Your task to perform on an android device: Check the news Image 0: 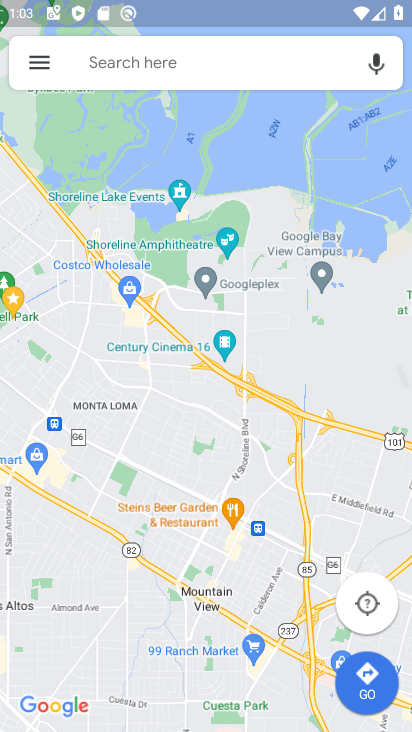
Step 0: press home button
Your task to perform on an android device: Check the news Image 1: 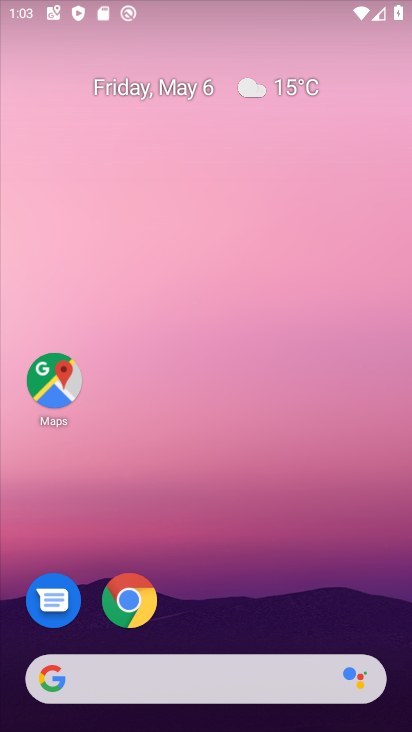
Step 1: drag from (347, 432) to (283, 93)
Your task to perform on an android device: Check the news Image 2: 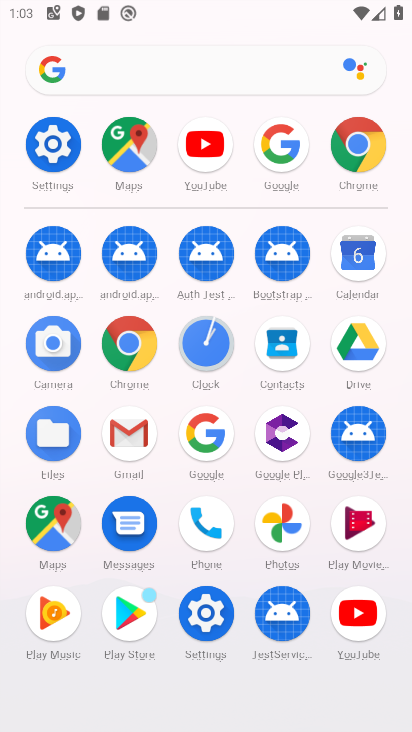
Step 2: click (361, 166)
Your task to perform on an android device: Check the news Image 3: 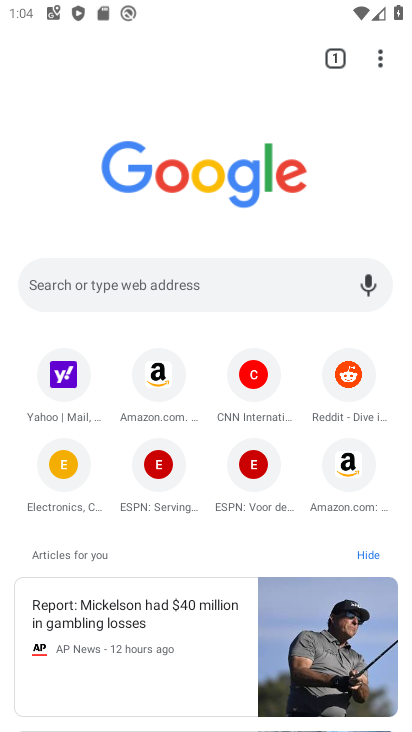
Step 3: click (76, 615)
Your task to perform on an android device: Check the news Image 4: 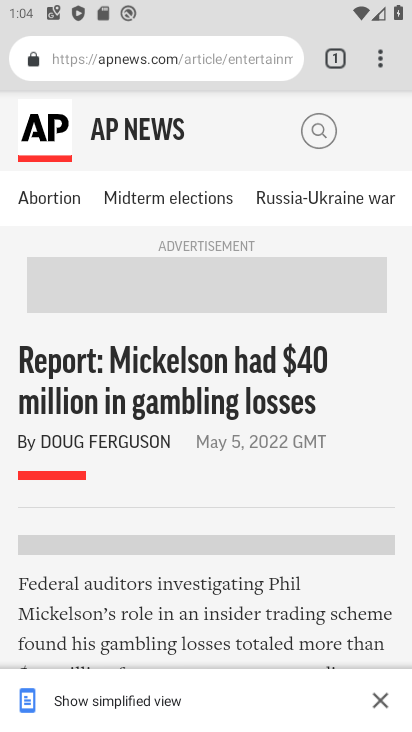
Step 4: task complete